Your task to perform on an android device: delete a single message in the gmail app Image 0: 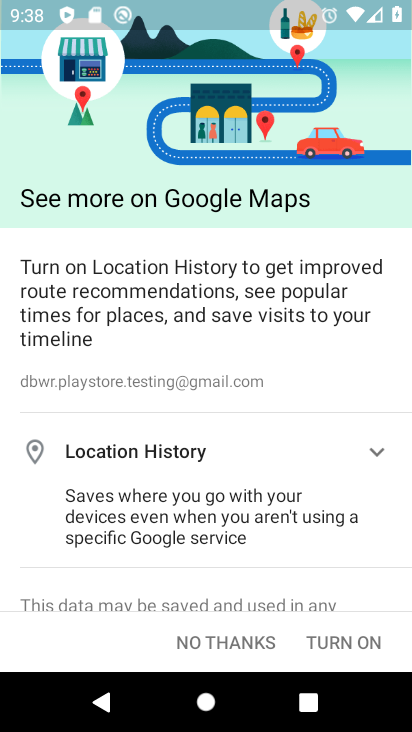
Step 0: press home button
Your task to perform on an android device: delete a single message in the gmail app Image 1: 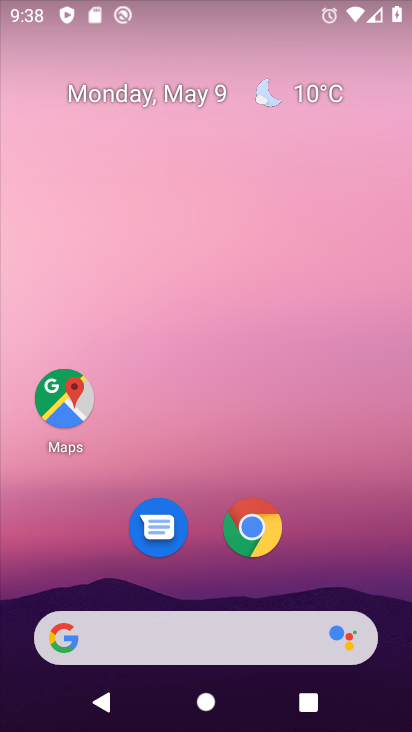
Step 1: drag from (408, 654) to (368, 42)
Your task to perform on an android device: delete a single message in the gmail app Image 2: 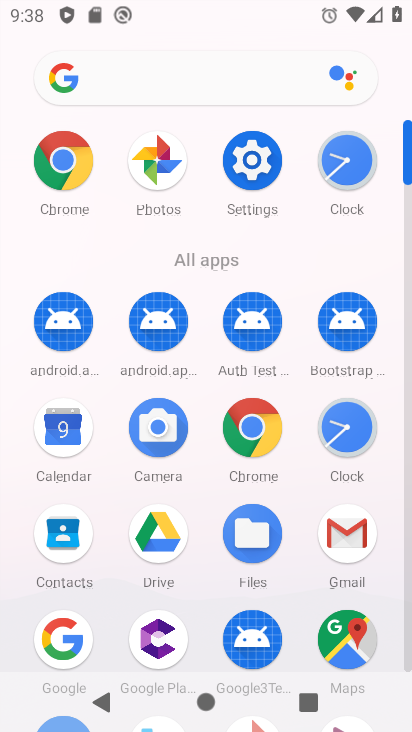
Step 2: click (404, 646)
Your task to perform on an android device: delete a single message in the gmail app Image 3: 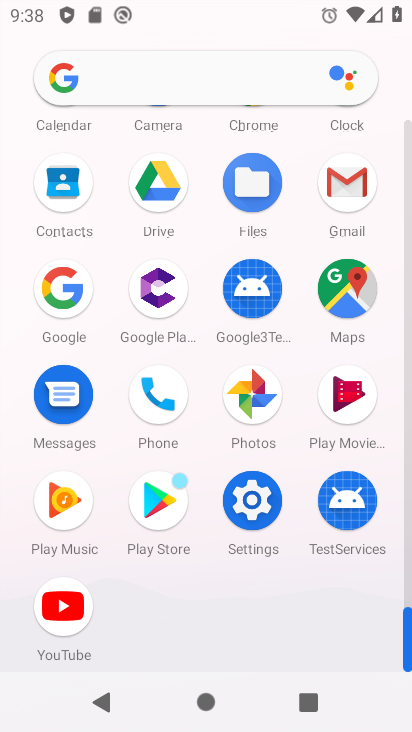
Step 3: click (342, 185)
Your task to perform on an android device: delete a single message in the gmail app Image 4: 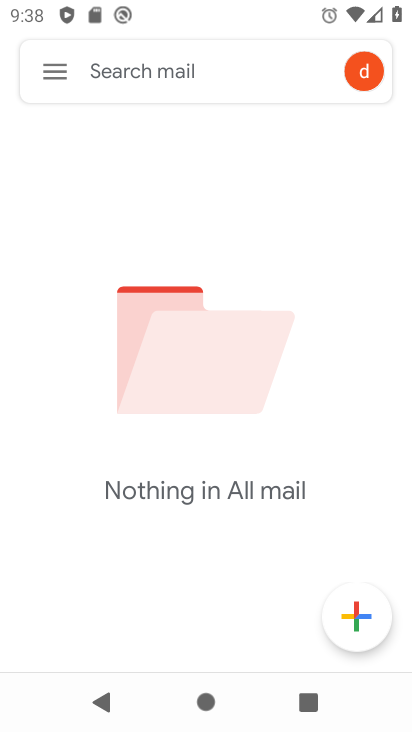
Step 4: click (56, 68)
Your task to perform on an android device: delete a single message in the gmail app Image 5: 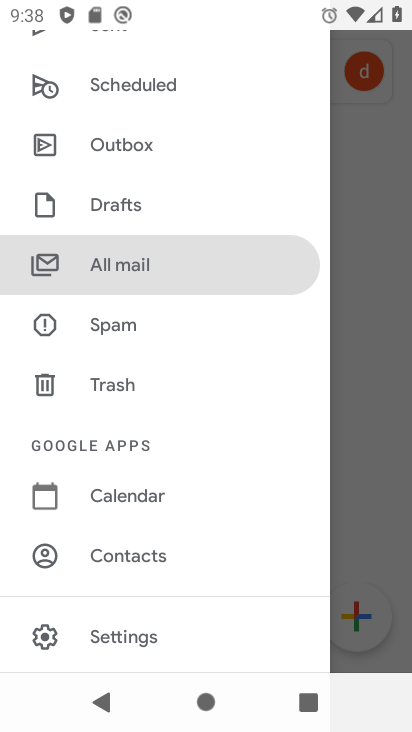
Step 5: click (141, 262)
Your task to perform on an android device: delete a single message in the gmail app Image 6: 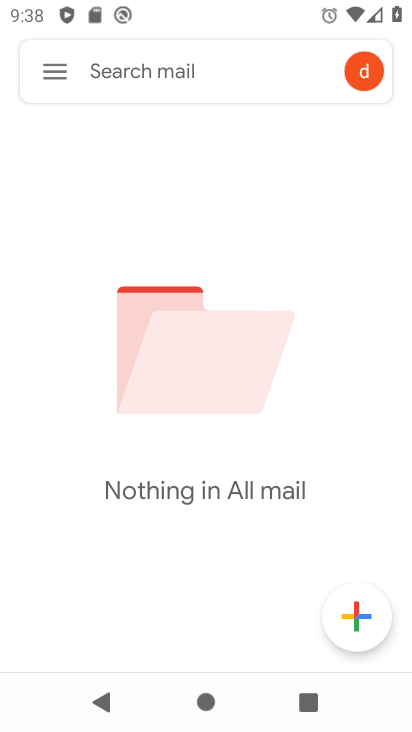
Step 6: task complete